Your task to perform on an android device: Open location settings Image 0: 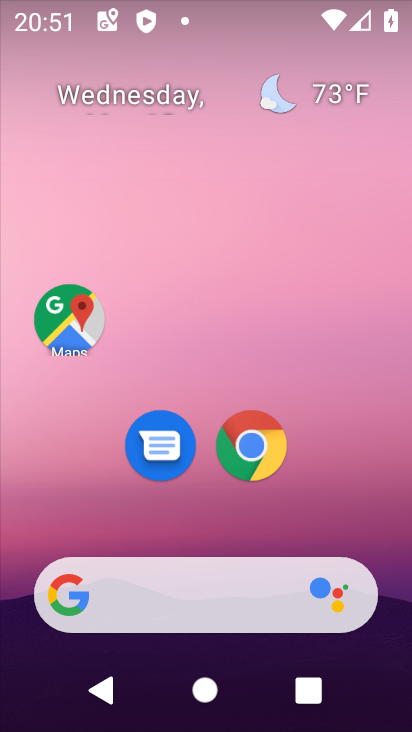
Step 0: drag from (291, 531) to (236, 117)
Your task to perform on an android device: Open location settings Image 1: 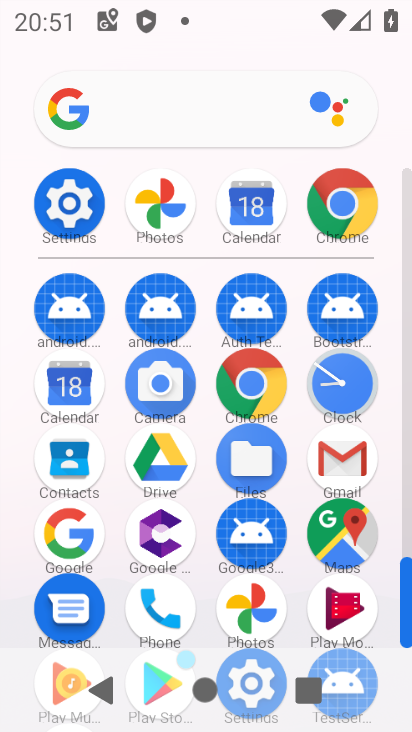
Step 1: click (72, 201)
Your task to perform on an android device: Open location settings Image 2: 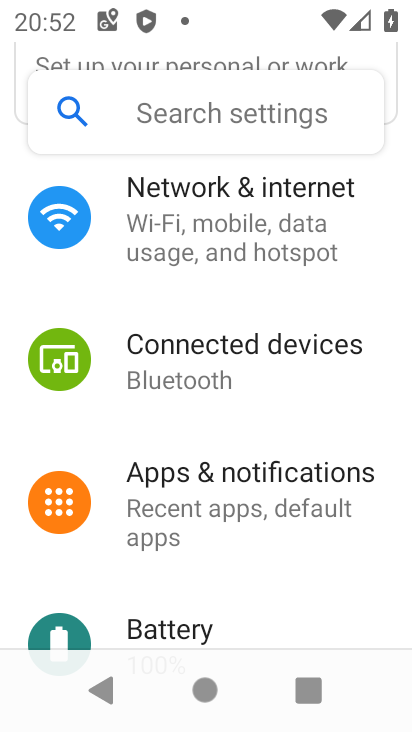
Step 2: drag from (178, 572) to (185, 171)
Your task to perform on an android device: Open location settings Image 3: 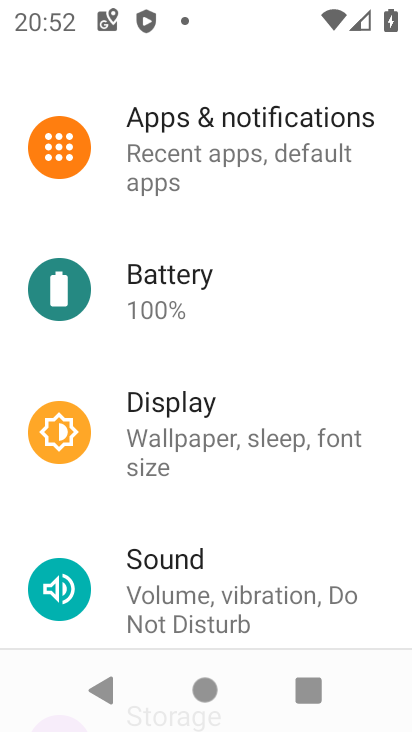
Step 3: drag from (187, 616) to (239, 175)
Your task to perform on an android device: Open location settings Image 4: 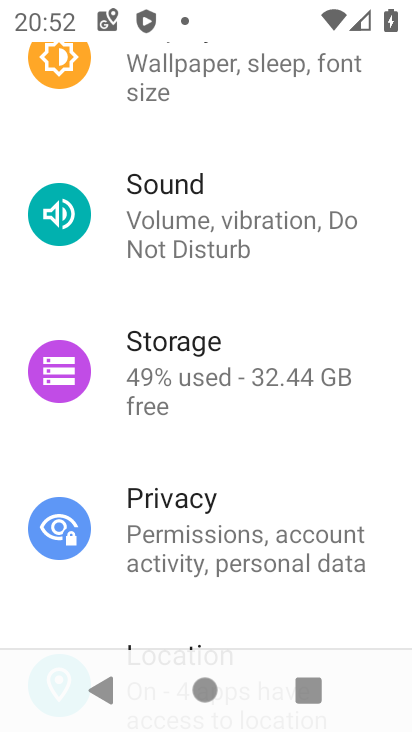
Step 4: drag from (190, 573) to (233, 333)
Your task to perform on an android device: Open location settings Image 5: 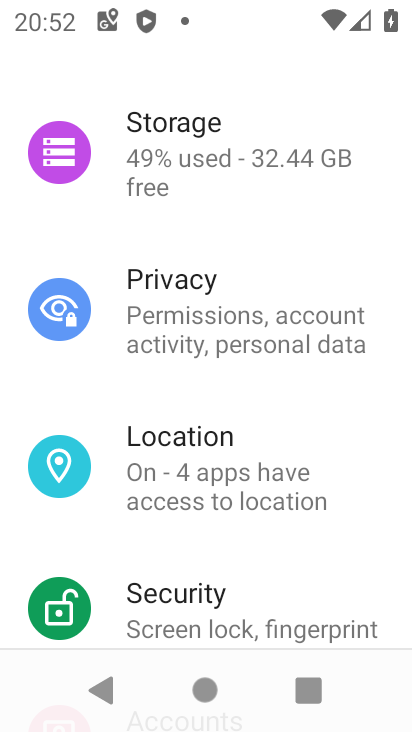
Step 5: click (206, 469)
Your task to perform on an android device: Open location settings Image 6: 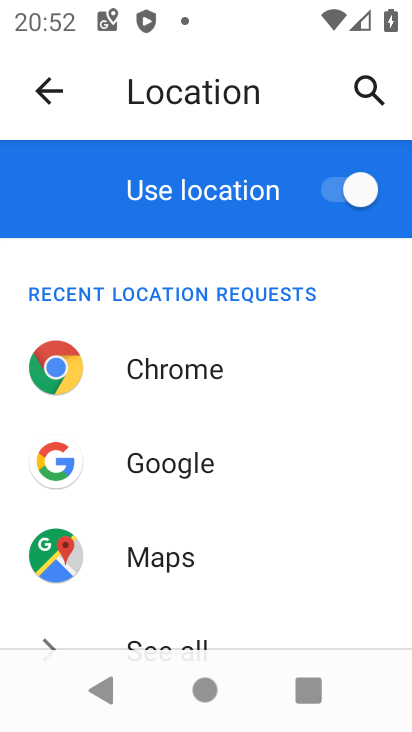
Step 6: task complete